Your task to perform on an android device: turn on the 12-hour format for clock Image 0: 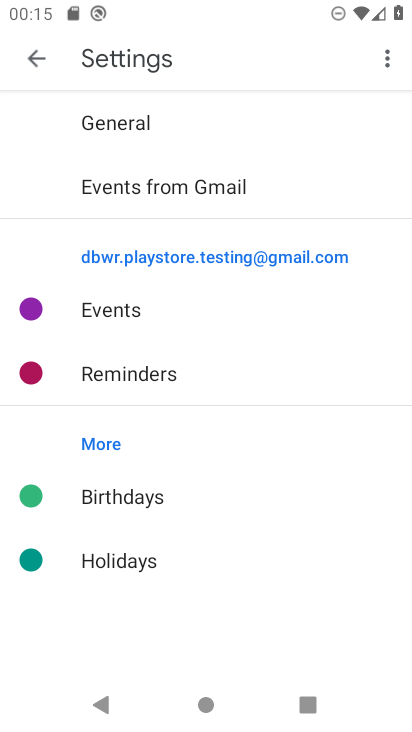
Step 0: press home button
Your task to perform on an android device: turn on the 12-hour format for clock Image 1: 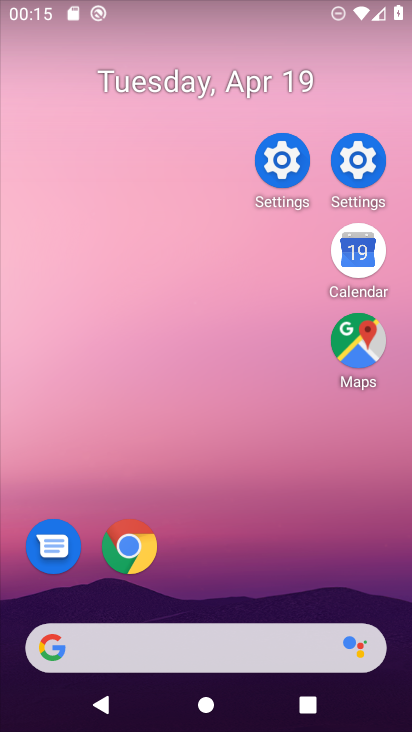
Step 1: drag from (193, 567) to (116, 133)
Your task to perform on an android device: turn on the 12-hour format for clock Image 2: 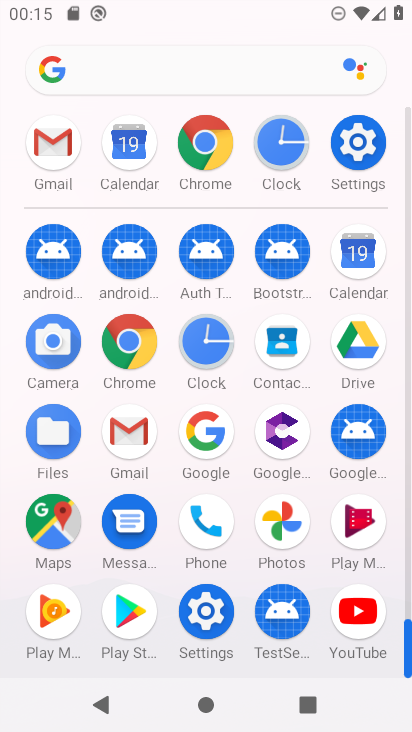
Step 2: click (281, 145)
Your task to perform on an android device: turn on the 12-hour format for clock Image 3: 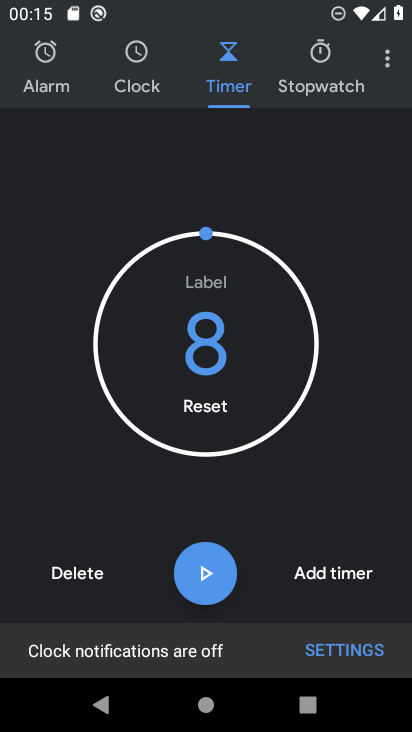
Step 3: click (381, 65)
Your task to perform on an android device: turn on the 12-hour format for clock Image 4: 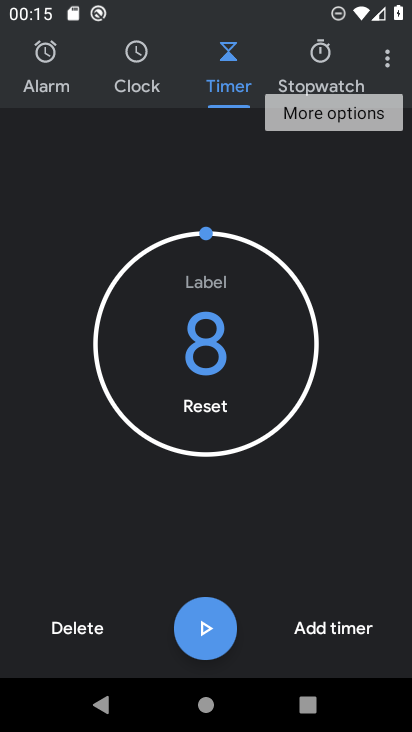
Step 4: click (360, 119)
Your task to perform on an android device: turn on the 12-hour format for clock Image 5: 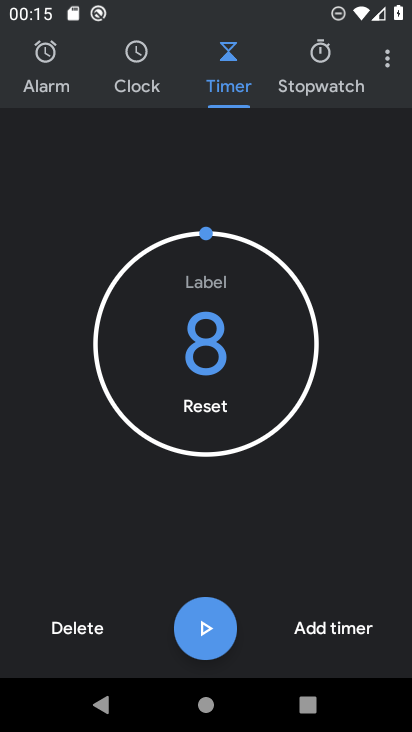
Step 5: click (387, 48)
Your task to perform on an android device: turn on the 12-hour format for clock Image 6: 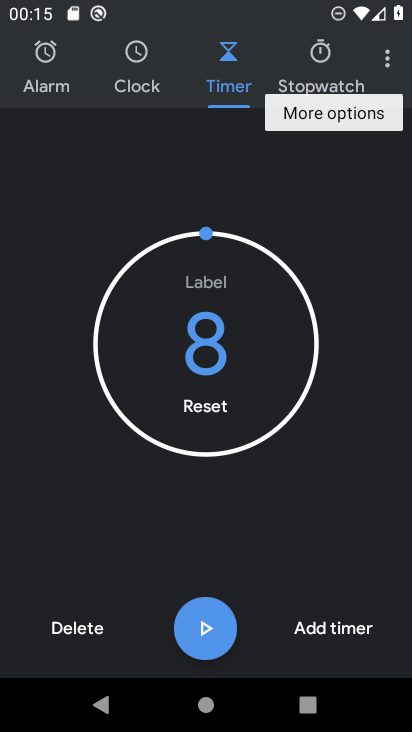
Step 6: click (389, 60)
Your task to perform on an android device: turn on the 12-hour format for clock Image 7: 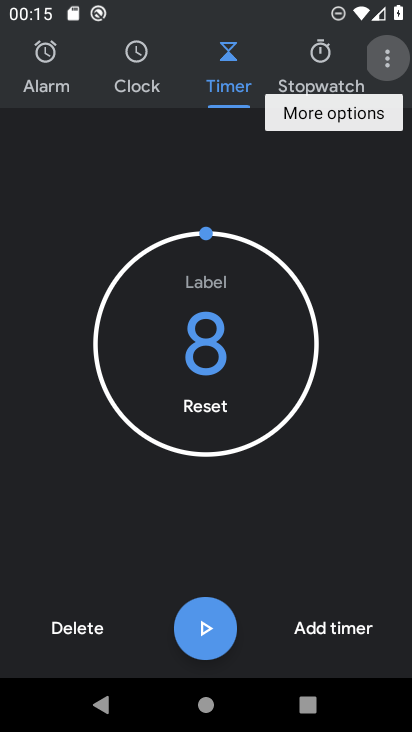
Step 7: click (389, 60)
Your task to perform on an android device: turn on the 12-hour format for clock Image 8: 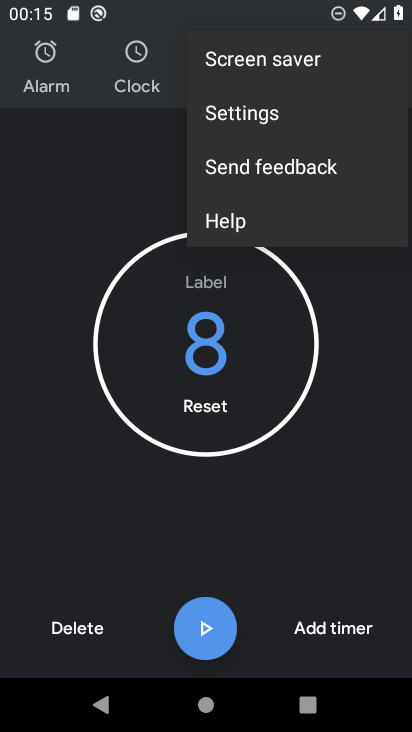
Step 8: click (235, 119)
Your task to perform on an android device: turn on the 12-hour format for clock Image 9: 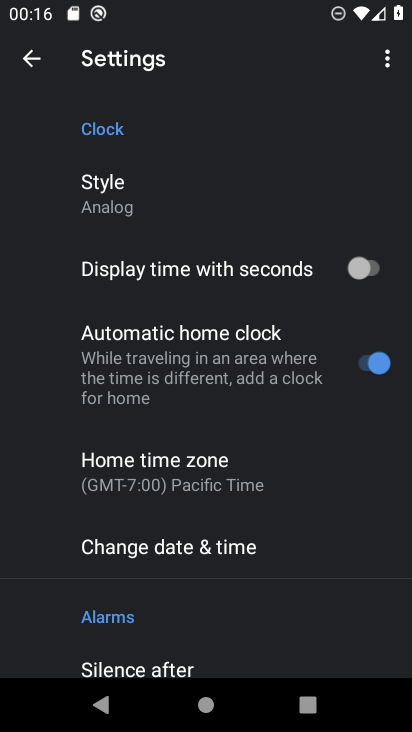
Step 9: click (159, 462)
Your task to perform on an android device: turn on the 12-hour format for clock Image 10: 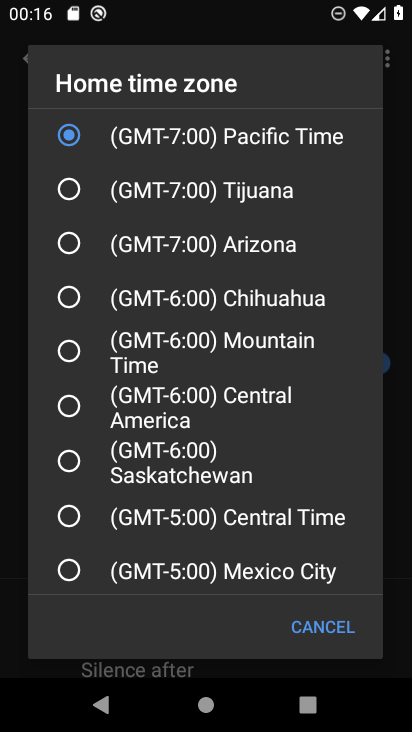
Step 10: click (342, 620)
Your task to perform on an android device: turn on the 12-hour format for clock Image 11: 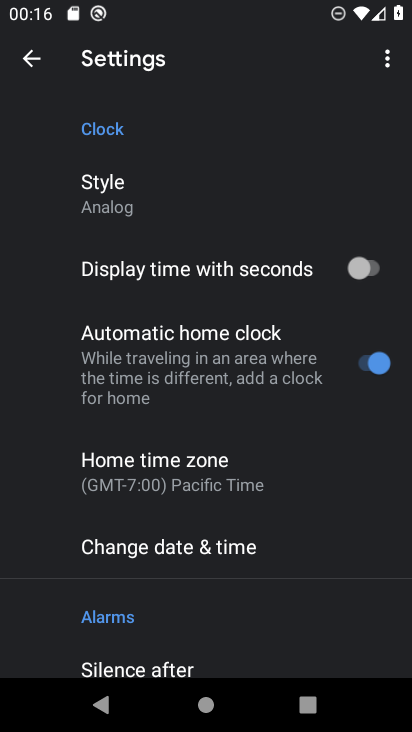
Step 11: click (174, 553)
Your task to perform on an android device: turn on the 12-hour format for clock Image 12: 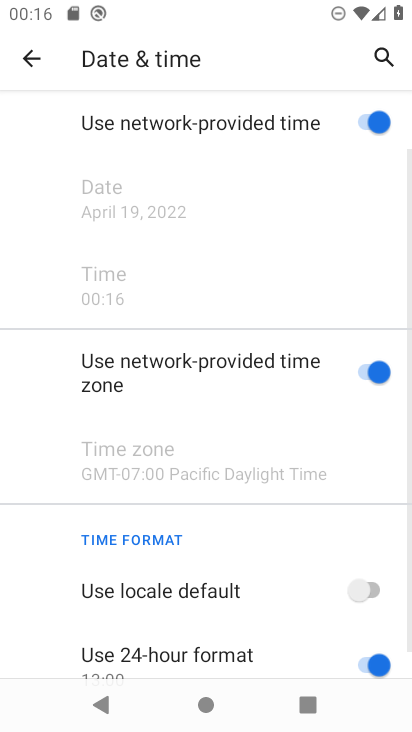
Step 12: drag from (251, 610) to (234, 222)
Your task to perform on an android device: turn on the 12-hour format for clock Image 13: 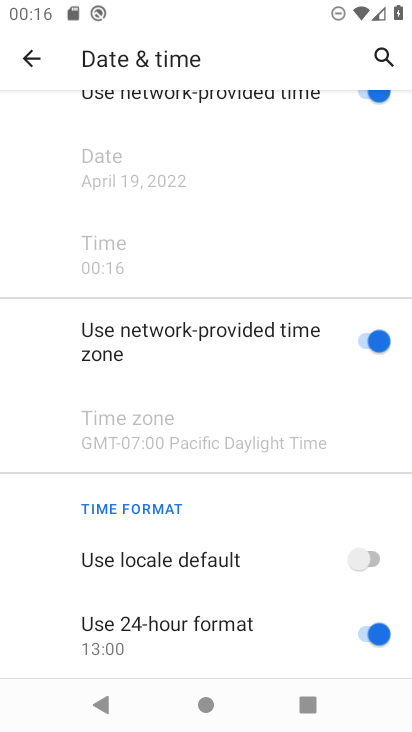
Step 13: click (359, 557)
Your task to perform on an android device: turn on the 12-hour format for clock Image 14: 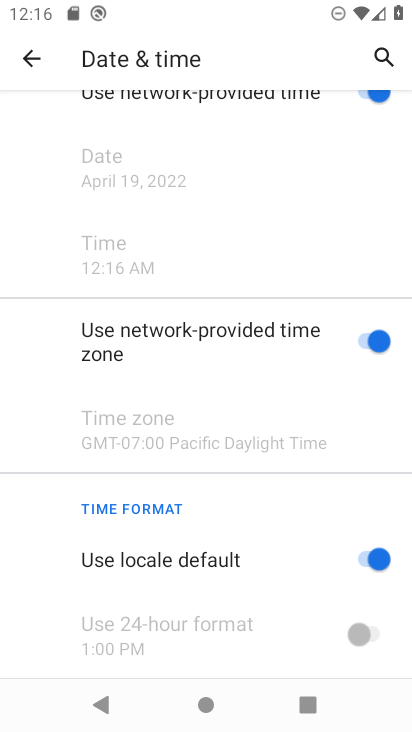
Step 14: task complete